Your task to perform on an android device: Search for sushi restaurants on Maps Image 0: 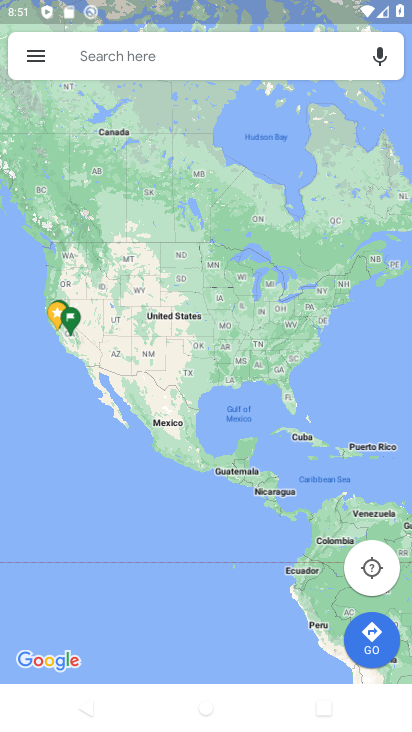
Step 0: click (113, 53)
Your task to perform on an android device: Search for sushi restaurants on Maps Image 1: 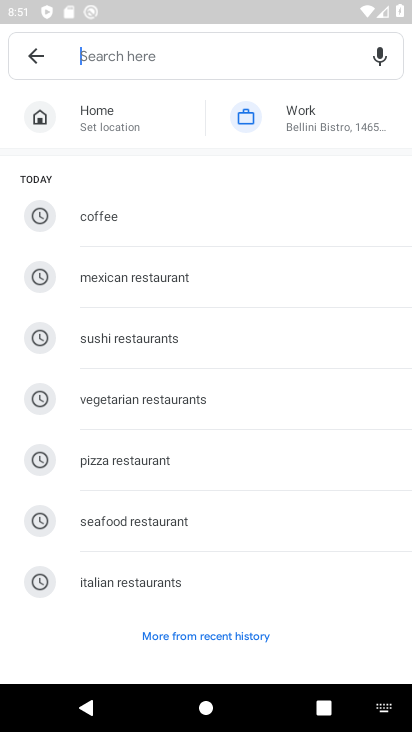
Step 1: click (151, 337)
Your task to perform on an android device: Search for sushi restaurants on Maps Image 2: 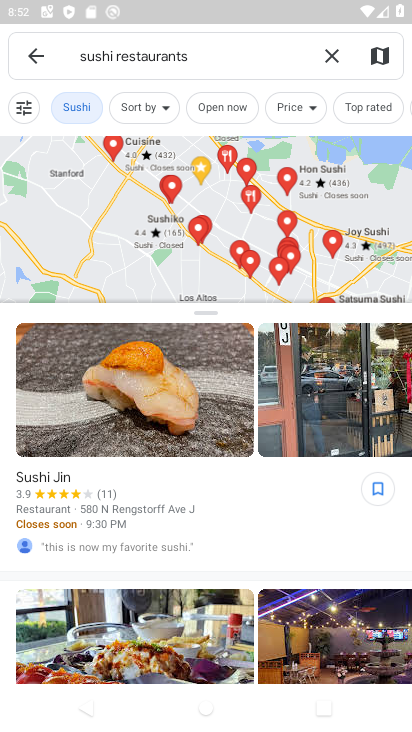
Step 2: drag from (186, 435) to (200, 77)
Your task to perform on an android device: Search for sushi restaurants on Maps Image 3: 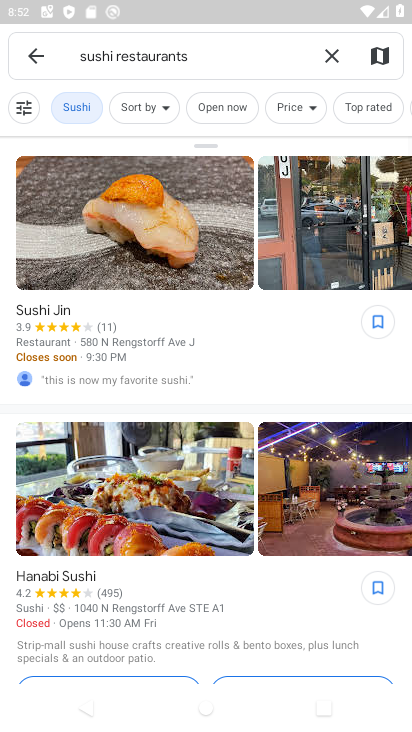
Step 3: drag from (199, 320) to (222, 115)
Your task to perform on an android device: Search for sushi restaurants on Maps Image 4: 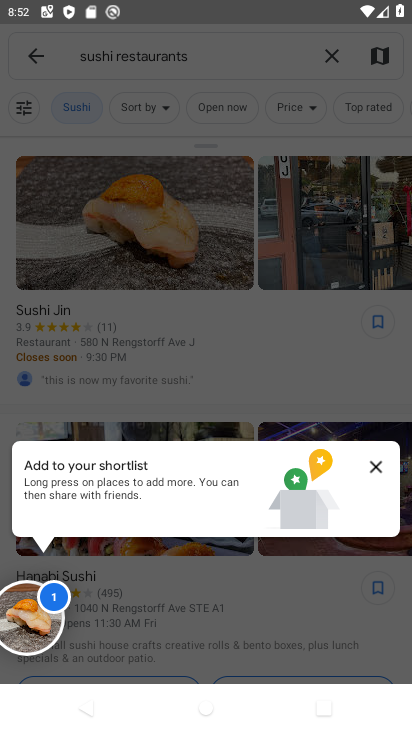
Step 4: click (370, 463)
Your task to perform on an android device: Search for sushi restaurants on Maps Image 5: 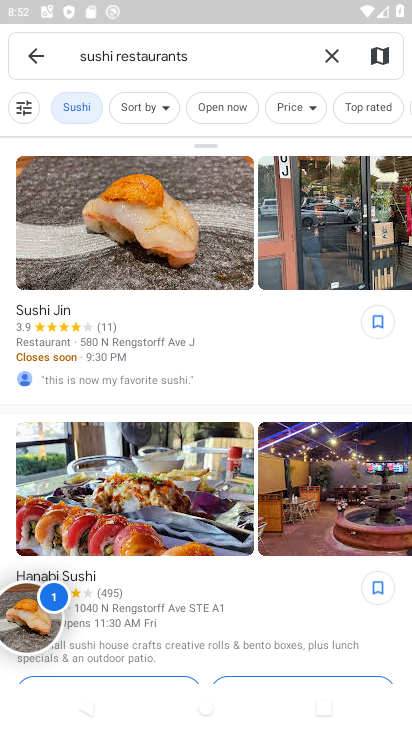
Step 5: task complete